Your task to perform on an android device: empty trash in the gmail app Image 0: 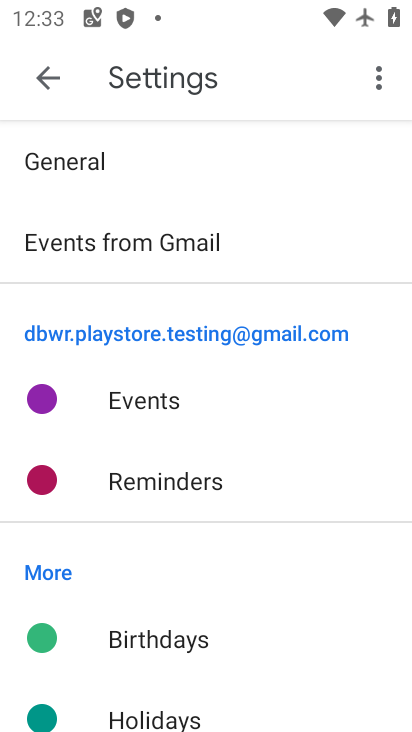
Step 0: press home button
Your task to perform on an android device: empty trash in the gmail app Image 1: 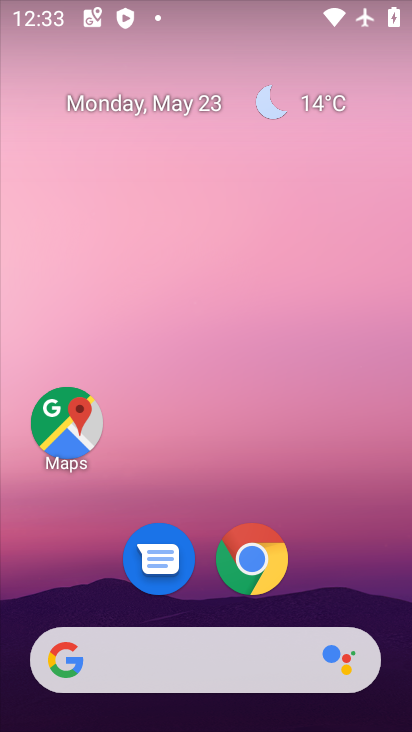
Step 1: drag from (341, 613) to (363, 10)
Your task to perform on an android device: empty trash in the gmail app Image 2: 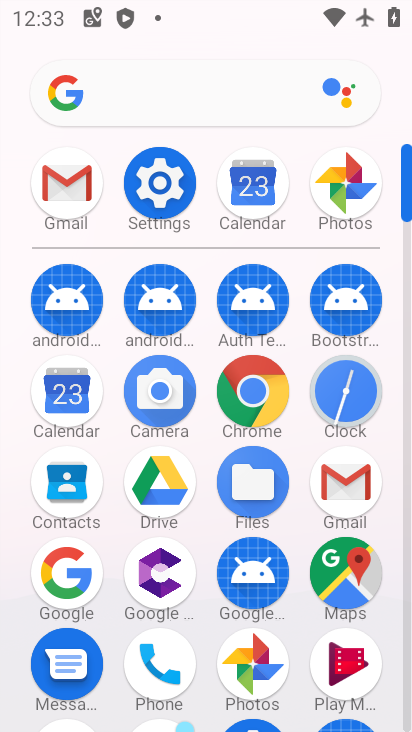
Step 2: click (62, 189)
Your task to perform on an android device: empty trash in the gmail app Image 3: 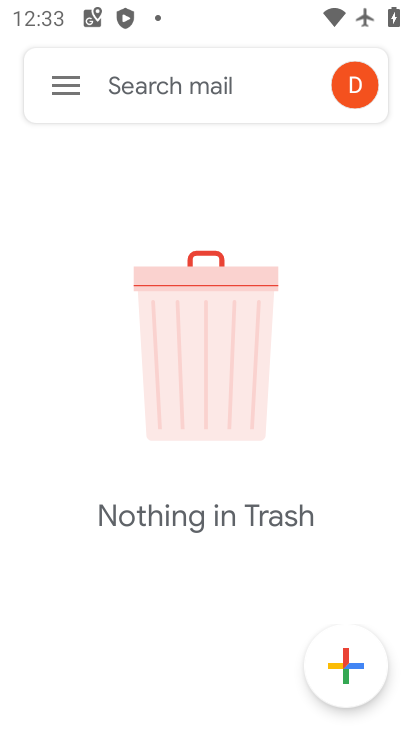
Step 3: task complete